Your task to perform on an android device: What's the weather today? Image 0: 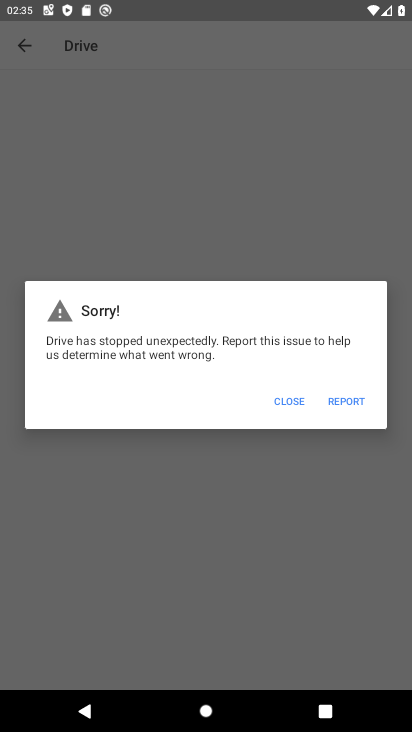
Step 0: press home button
Your task to perform on an android device: What's the weather today? Image 1: 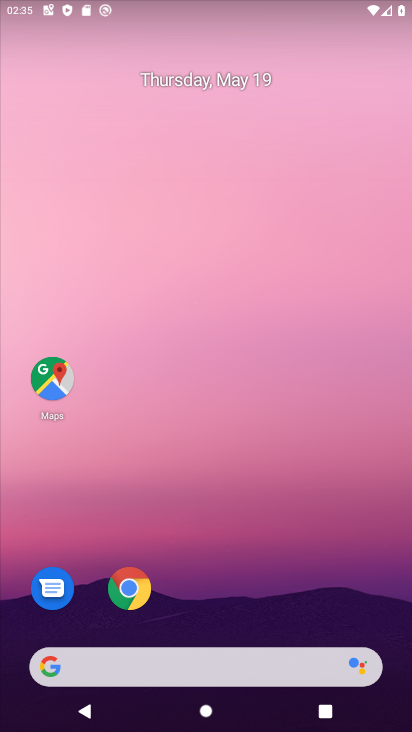
Step 1: drag from (252, 578) to (273, 104)
Your task to perform on an android device: What's the weather today? Image 2: 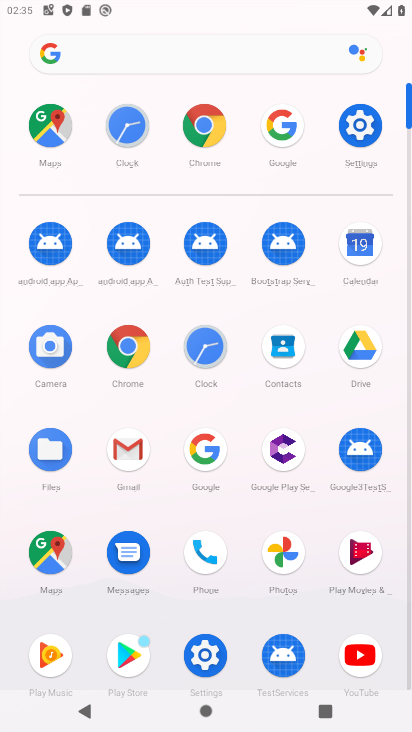
Step 2: click (278, 125)
Your task to perform on an android device: What's the weather today? Image 3: 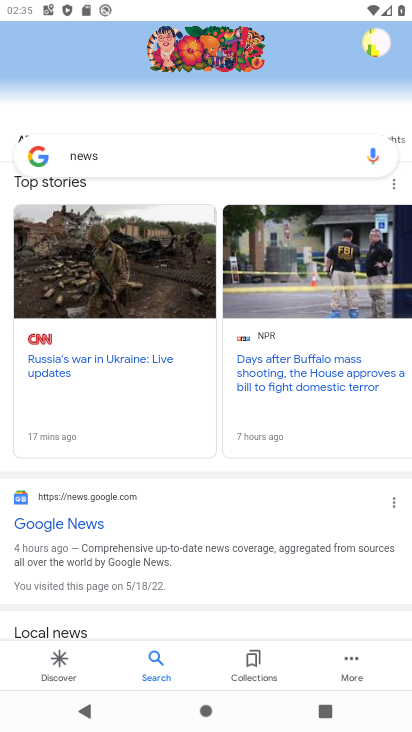
Step 3: click (177, 154)
Your task to perform on an android device: What's the weather today? Image 4: 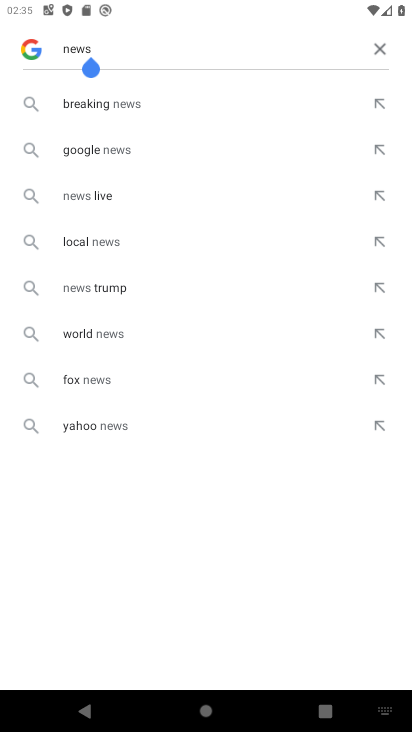
Step 4: click (375, 48)
Your task to perform on an android device: What's the weather today? Image 5: 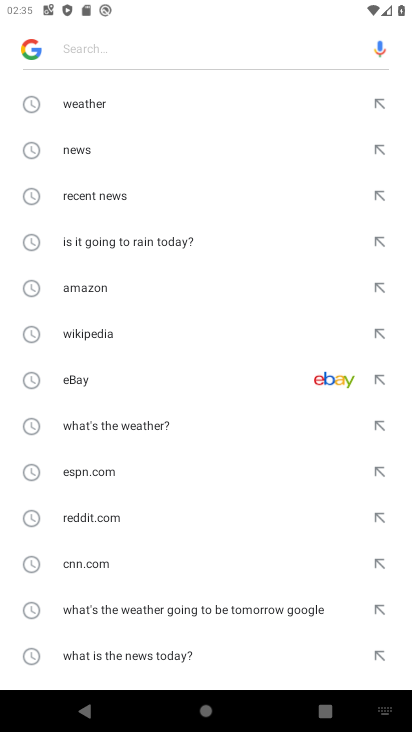
Step 5: click (124, 114)
Your task to perform on an android device: What's the weather today? Image 6: 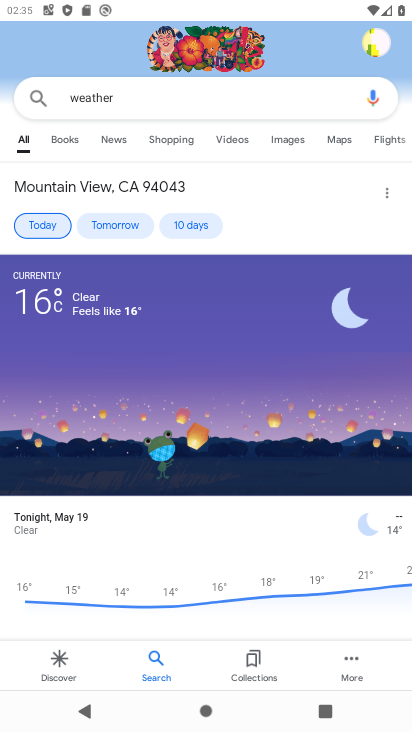
Step 6: task complete